Your task to perform on an android device: toggle wifi Image 0: 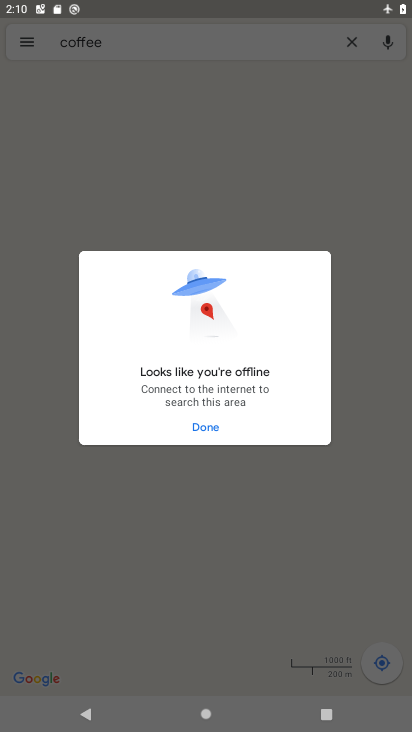
Step 0: press home button
Your task to perform on an android device: toggle wifi Image 1: 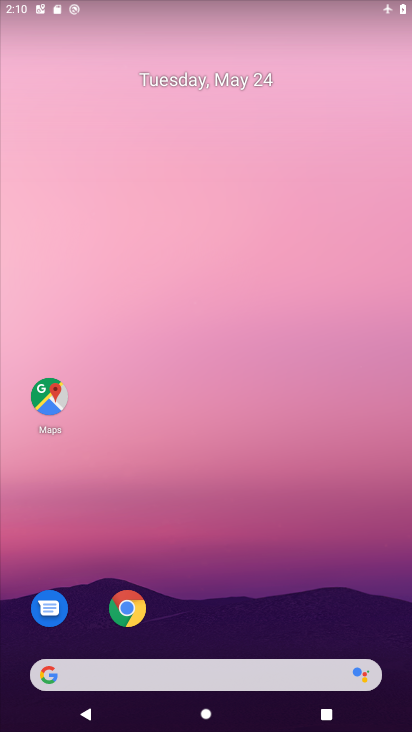
Step 1: drag from (239, 605) to (297, 140)
Your task to perform on an android device: toggle wifi Image 2: 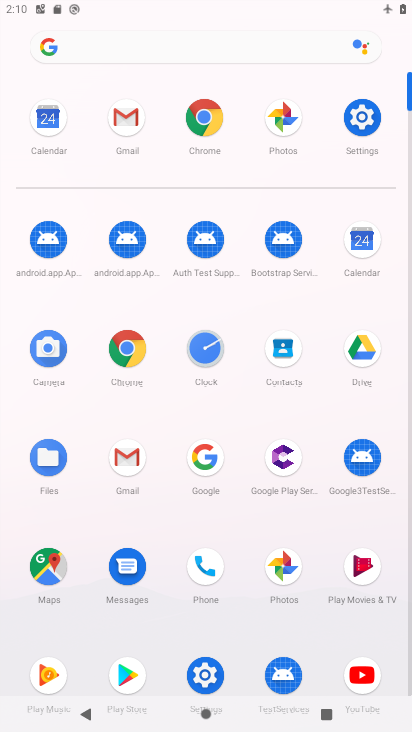
Step 2: click (362, 127)
Your task to perform on an android device: toggle wifi Image 3: 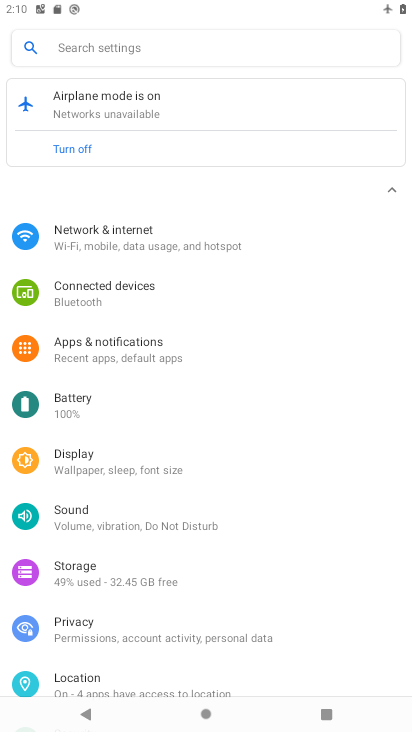
Step 3: click (248, 227)
Your task to perform on an android device: toggle wifi Image 4: 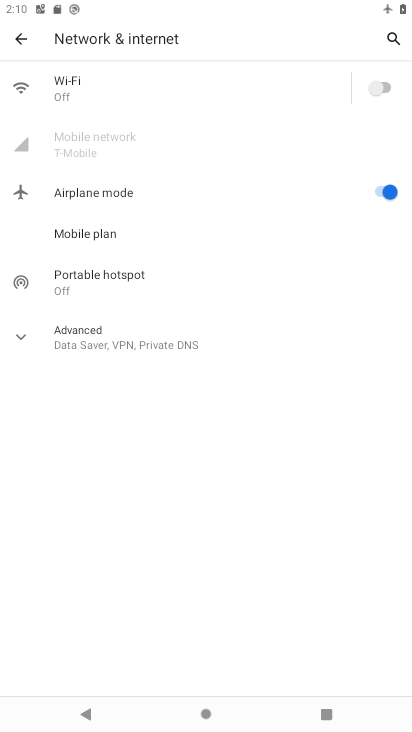
Step 4: click (364, 91)
Your task to perform on an android device: toggle wifi Image 5: 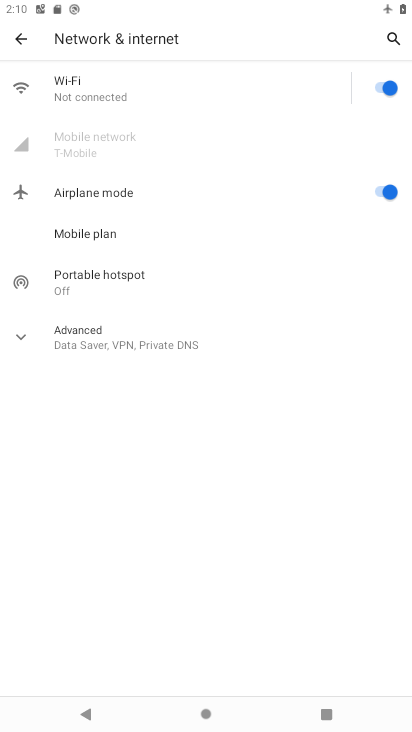
Step 5: task complete